Your task to perform on an android device: Show me recent news Image 0: 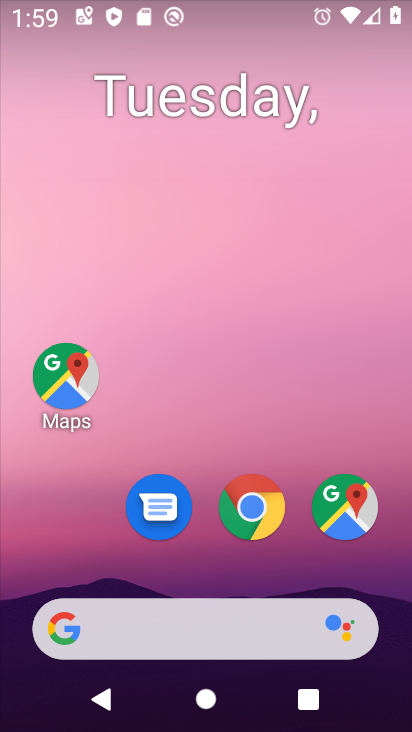
Step 0: drag from (310, 535) to (310, 181)
Your task to perform on an android device: Show me recent news Image 1: 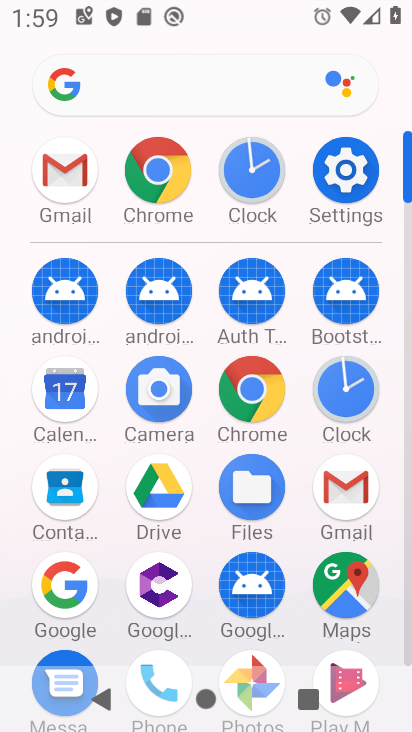
Step 1: click (152, 169)
Your task to perform on an android device: Show me recent news Image 2: 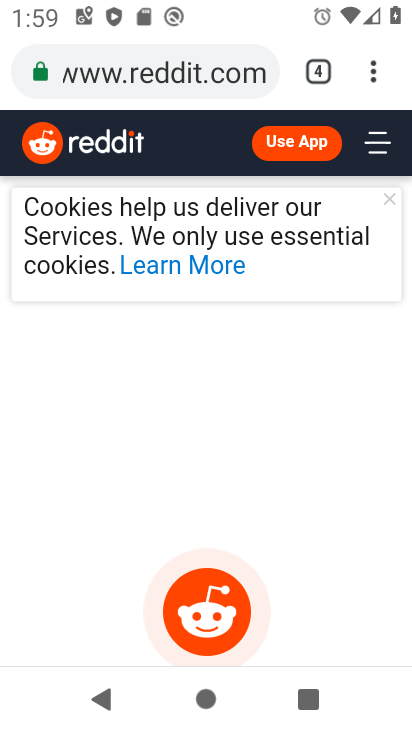
Step 2: click (371, 72)
Your task to perform on an android device: Show me recent news Image 3: 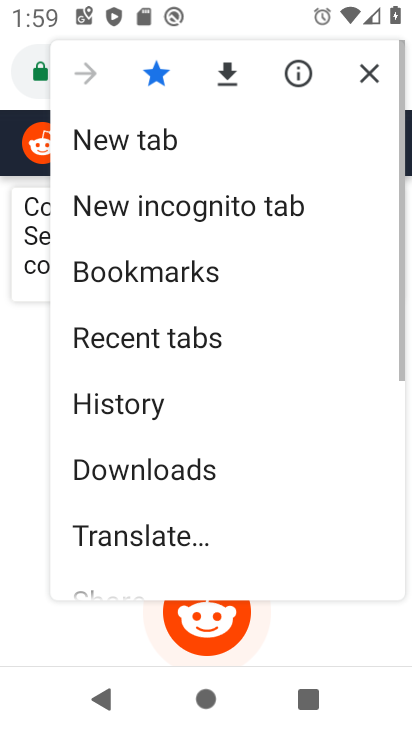
Step 3: click (180, 129)
Your task to perform on an android device: Show me recent news Image 4: 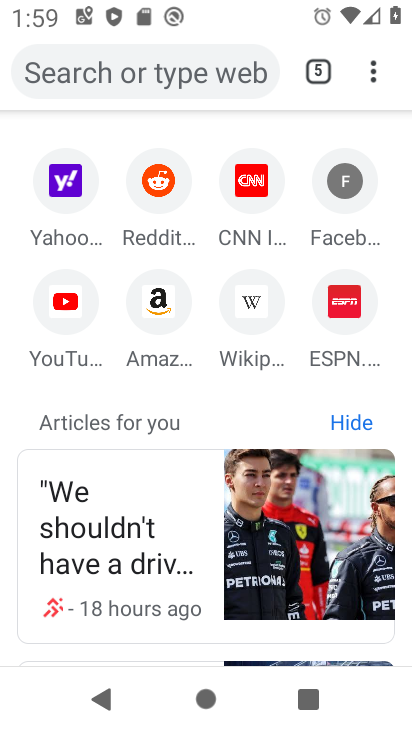
Step 4: click (194, 60)
Your task to perform on an android device: Show me recent news Image 5: 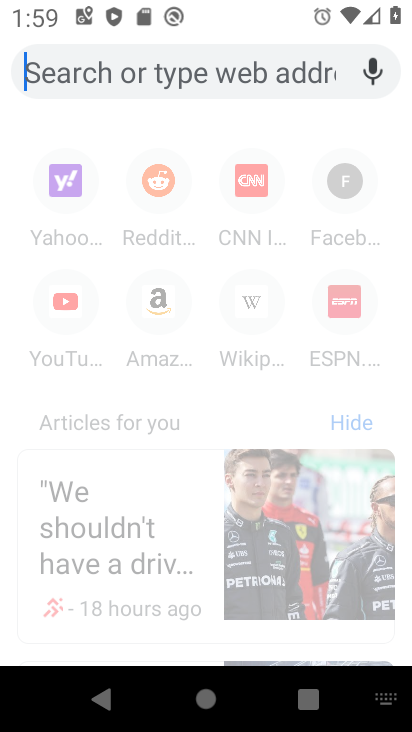
Step 5: type "Show me recent news"
Your task to perform on an android device: Show me recent news Image 6: 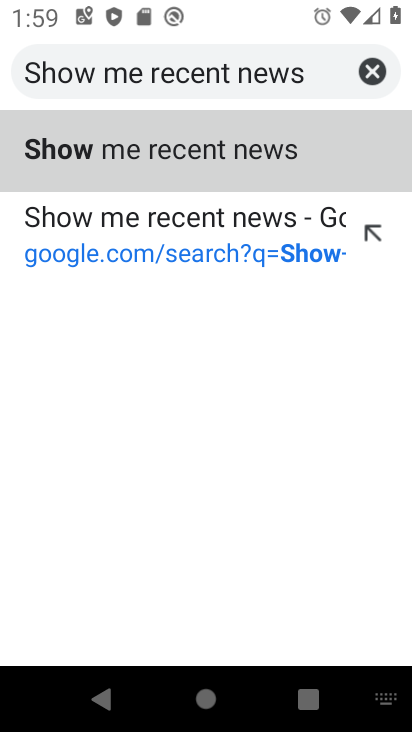
Step 6: click (173, 135)
Your task to perform on an android device: Show me recent news Image 7: 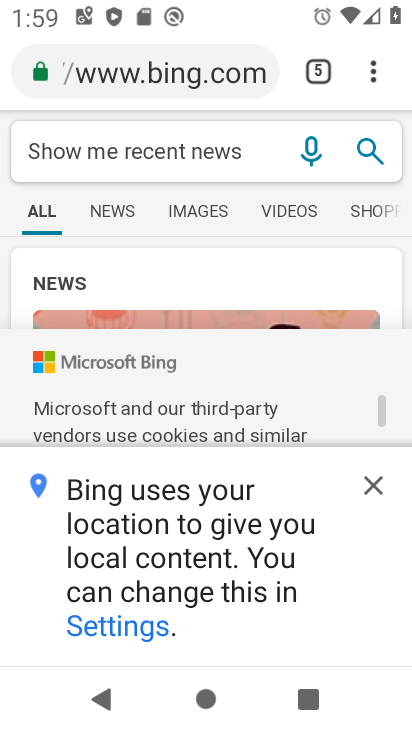
Step 7: click (371, 482)
Your task to perform on an android device: Show me recent news Image 8: 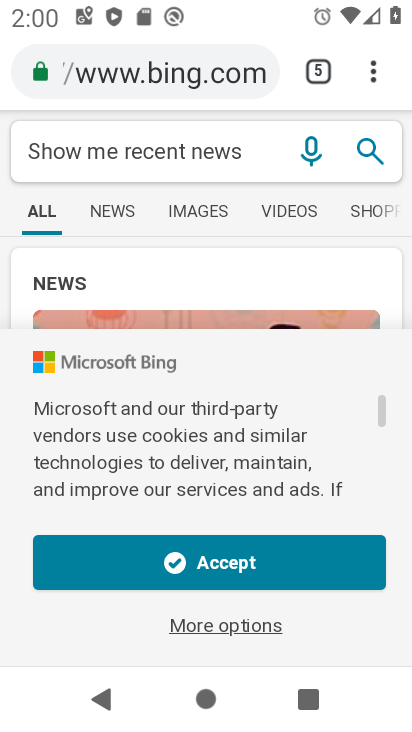
Step 8: click (288, 575)
Your task to perform on an android device: Show me recent news Image 9: 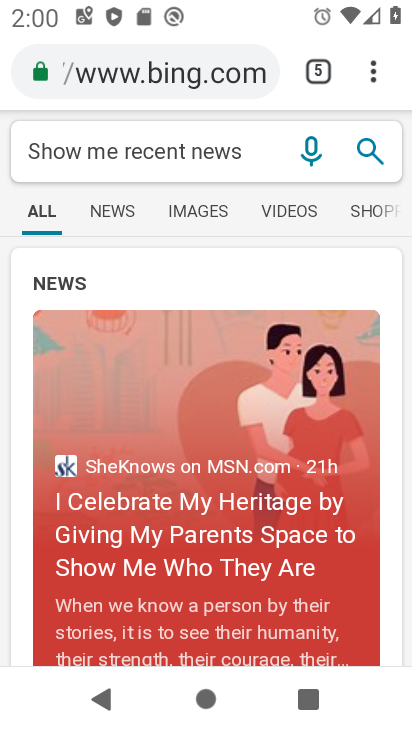
Step 9: task complete